Your task to perform on an android device: turn on data saver in the chrome app Image 0: 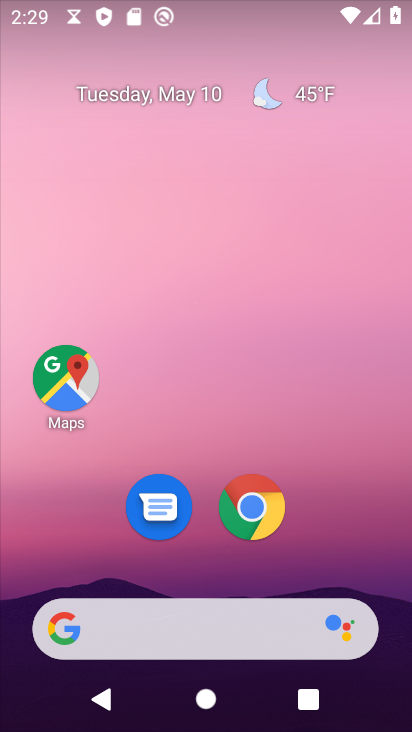
Step 0: click (254, 501)
Your task to perform on an android device: turn on data saver in the chrome app Image 1: 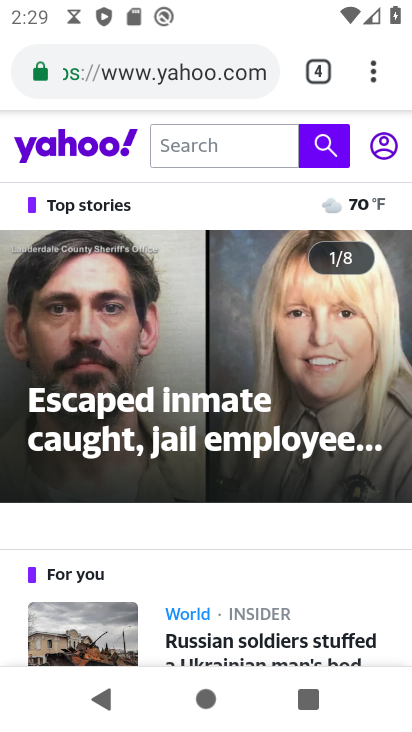
Step 1: drag from (369, 79) to (180, 501)
Your task to perform on an android device: turn on data saver in the chrome app Image 2: 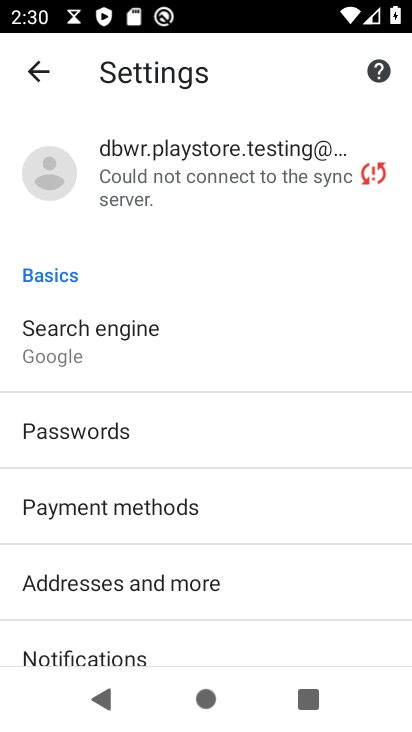
Step 2: drag from (164, 650) to (168, 349)
Your task to perform on an android device: turn on data saver in the chrome app Image 3: 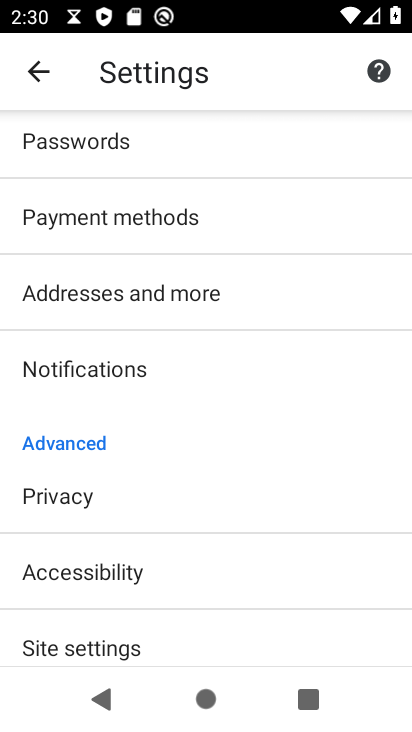
Step 3: drag from (112, 652) to (119, 439)
Your task to perform on an android device: turn on data saver in the chrome app Image 4: 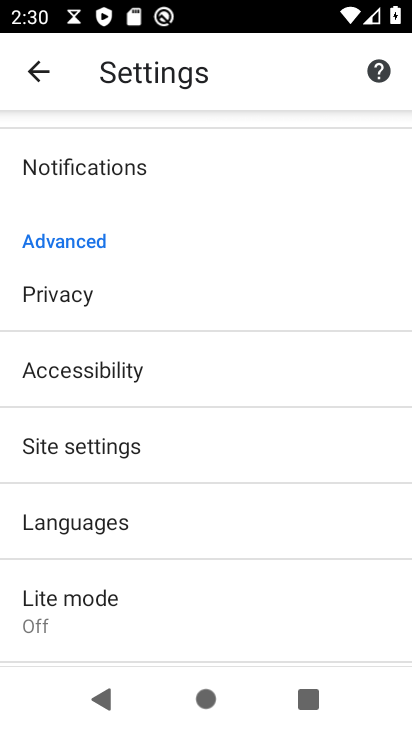
Step 4: click (75, 612)
Your task to perform on an android device: turn on data saver in the chrome app Image 5: 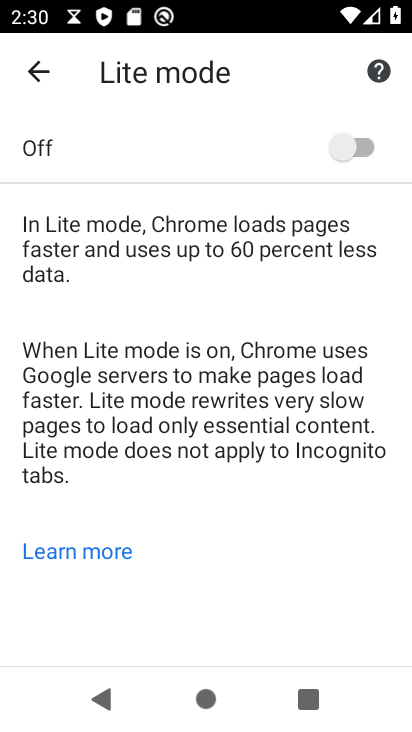
Step 5: click (353, 152)
Your task to perform on an android device: turn on data saver in the chrome app Image 6: 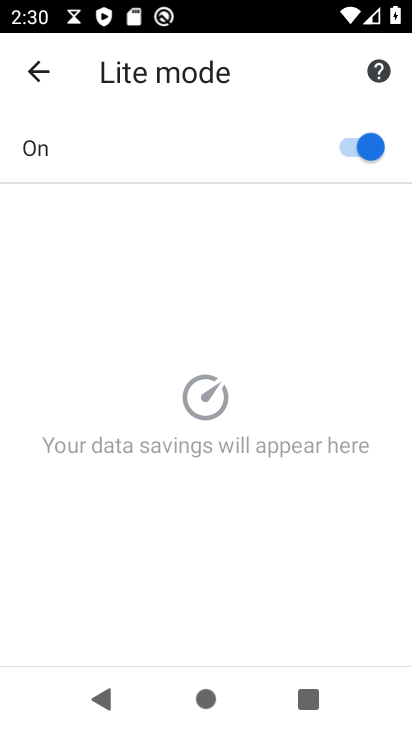
Step 6: task complete